Your task to perform on an android device: Open Yahoo.com Image 0: 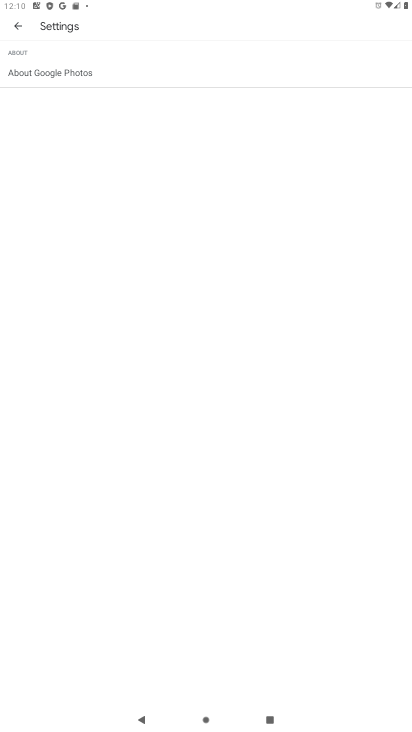
Step 0: press home button
Your task to perform on an android device: Open Yahoo.com Image 1: 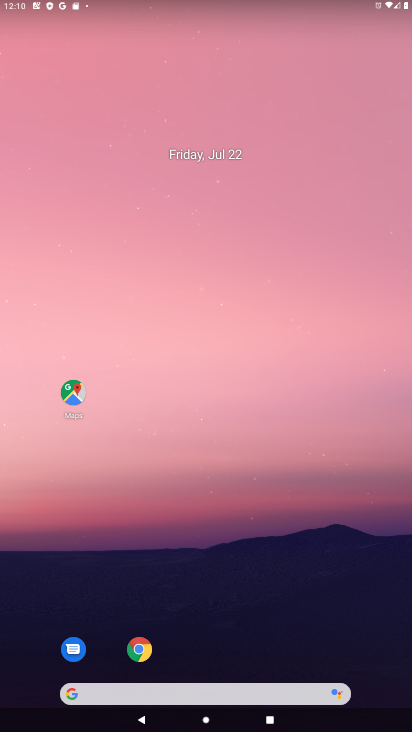
Step 1: drag from (280, 621) to (234, 108)
Your task to perform on an android device: Open Yahoo.com Image 2: 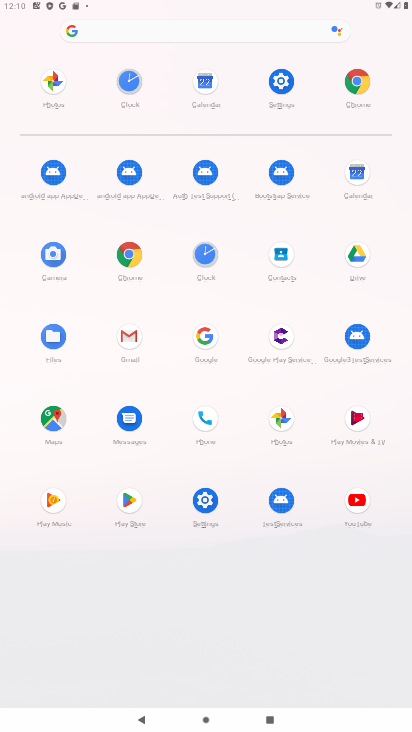
Step 2: click (349, 80)
Your task to perform on an android device: Open Yahoo.com Image 3: 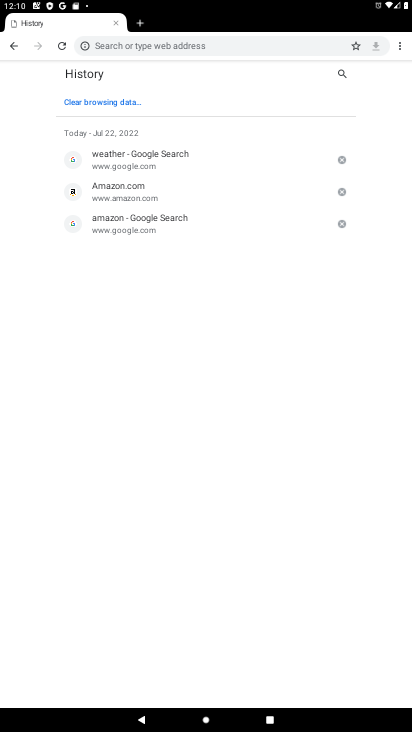
Step 3: click (267, 48)
Your task to perform on an android device: Open Yahoo.com Image 4: 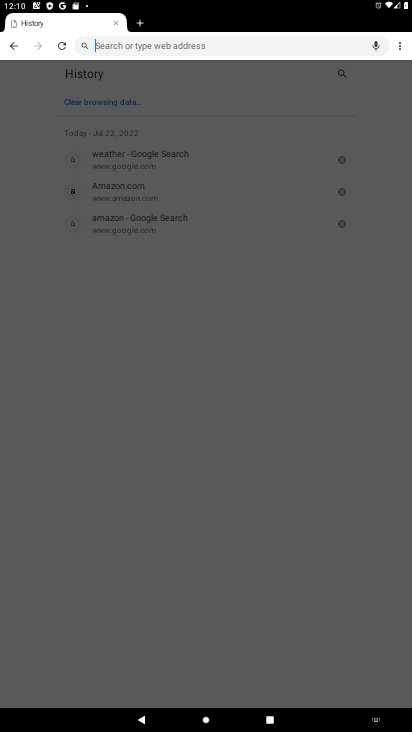
Step 4: type "yahoo,com"
Your task to perform on an android device: Open Yahoo.com Image 5: 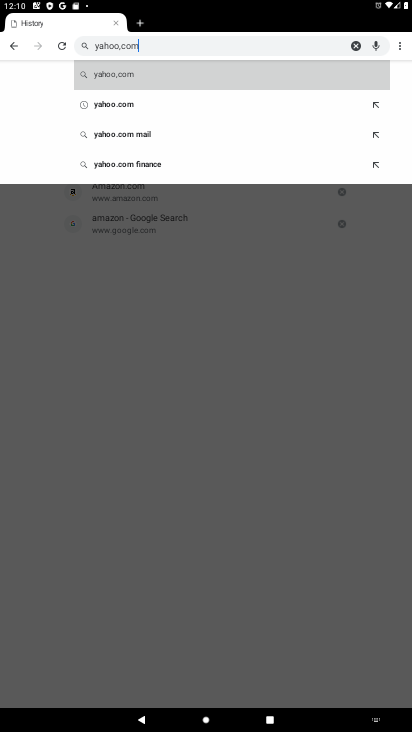
Step 5: click (110, 67)
Your task to perform on an android device: Open Yahoo.com Image 6: 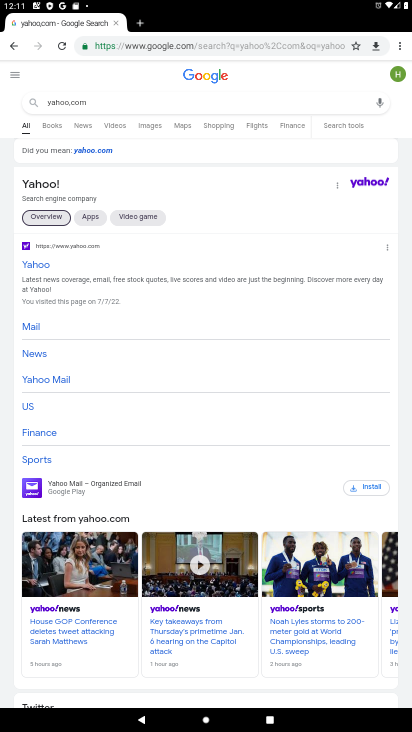
Step 6: drag from (255, 442) to (235, 98)
Your task to perform on an android device: Open Yahoo.com Image 7: 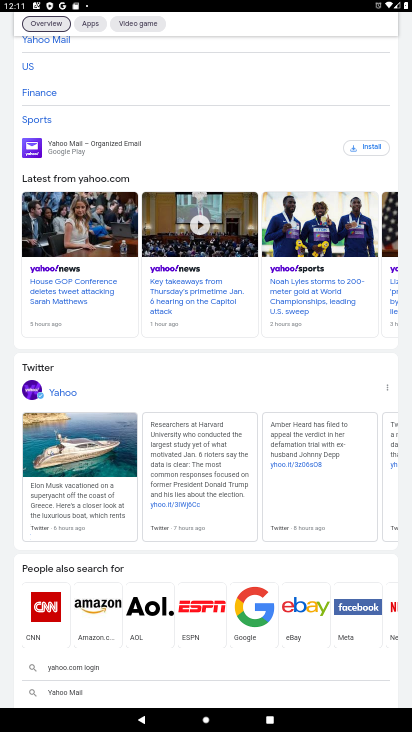
Step 7: drag from (199, 570) to (183, 264)
Your task to perform on an android device: Open Yahoo.com Image 8: 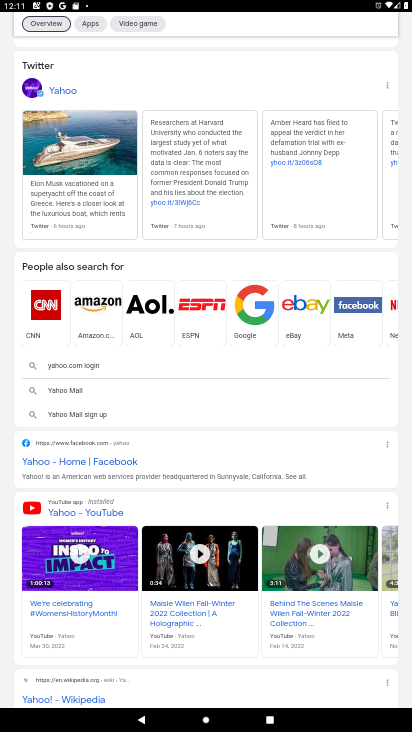
Step 8: drag from (169, 617) to (206, 552)
Your task to perform on an android device: Open Yahoo.com Image 9: 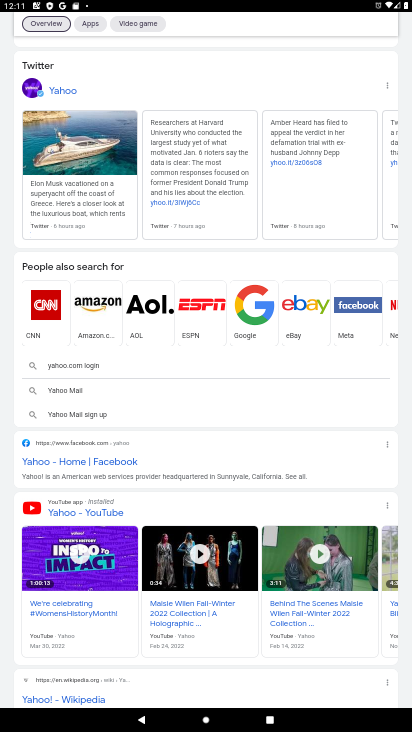
Step 9: drag from (189, 170) to (252, 546)
Your task to perform on an android device: Open Yahoo.com Image 10: 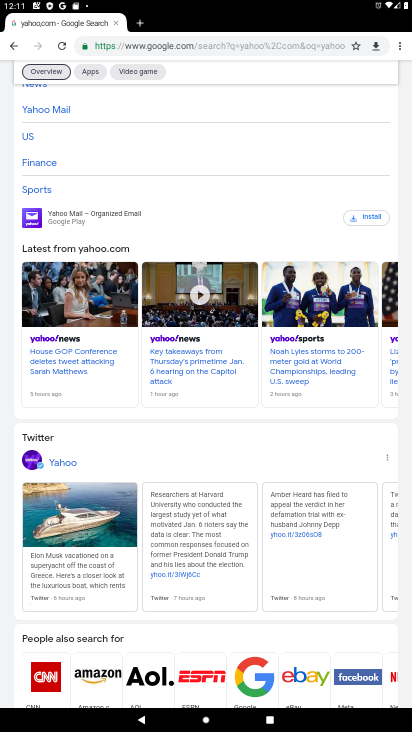
Step 10: drag from (90, 216) to (162, 467)
Your task to perform on an android device: Open Yahoo.com Image 11: 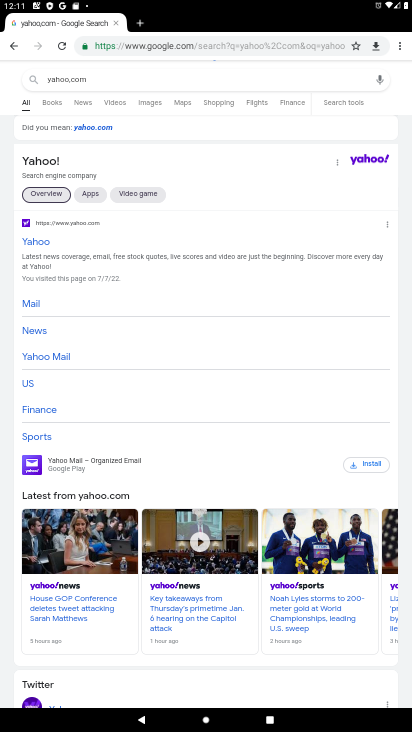
Step 11: click (42, 240)
Your task to perform on an android device: Open Yahoo.com Image 12: 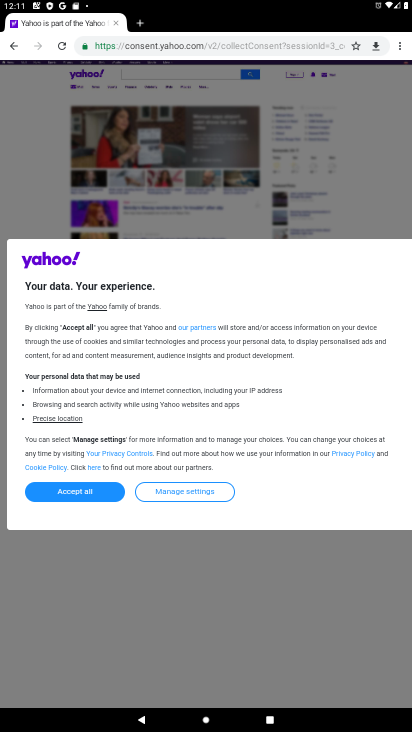
Step 12: task complete